Your task to perform on an android device: What's on my calendar tomorrow? Image 0: 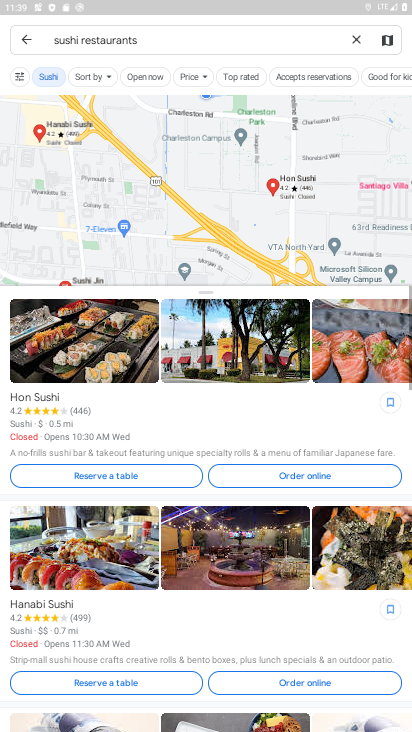
Step 0: press home button
Your task to perform on an android device: What's on my calendar tomorrow? Image 1: 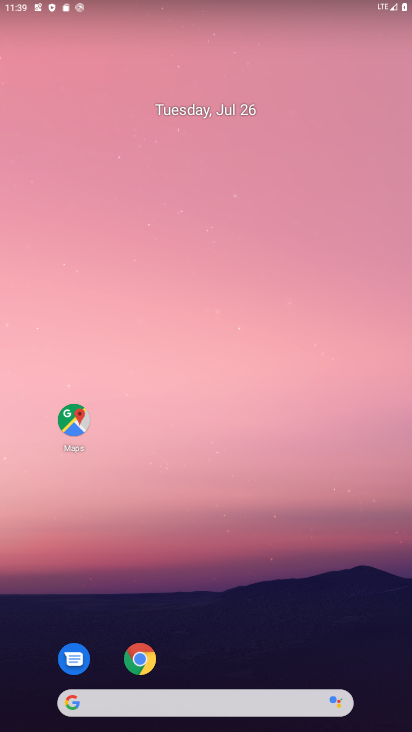
Step 1: drag from (56, 421) to (172, 82)
Your task to perform on an android device: What's on my calendar tomorrow? Image 2: 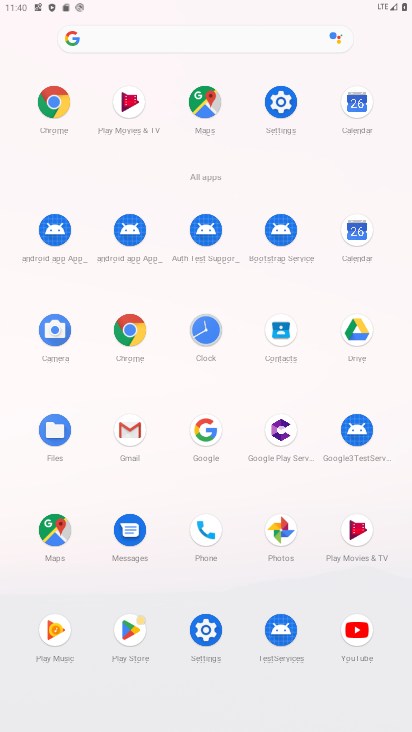
Step 2: click (369, 234)
Your task to perform on an android device: What's on my calendar tomorrow? Image 3: 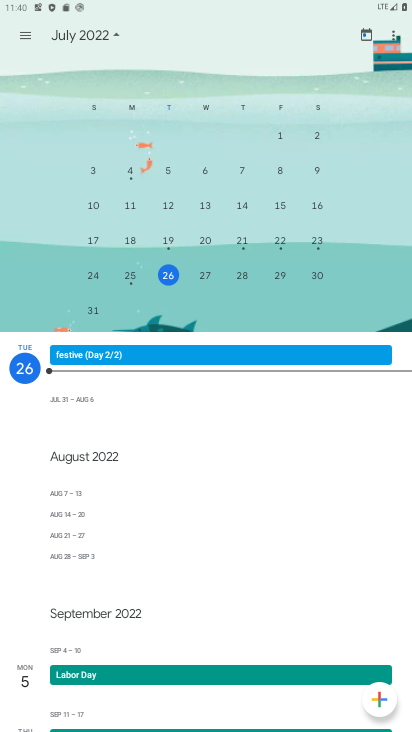
Step 3: click (195, 275)
Your task to perform on an android device: What's on my calendar tomorrow? Image 4: 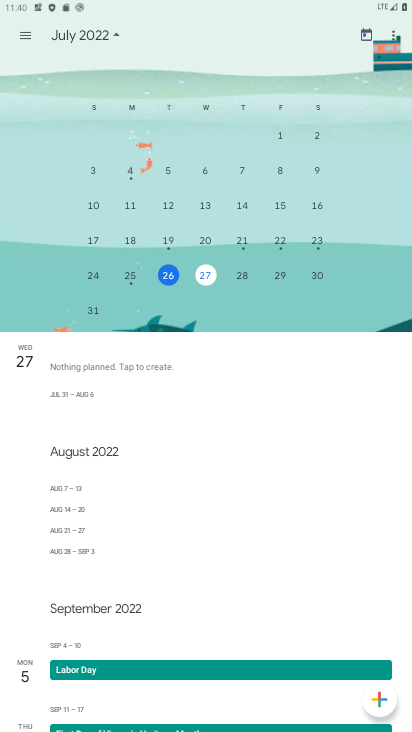
Step 4: task complete